Your task to perform on an android device: install app "Google Find My Device" Image 0: 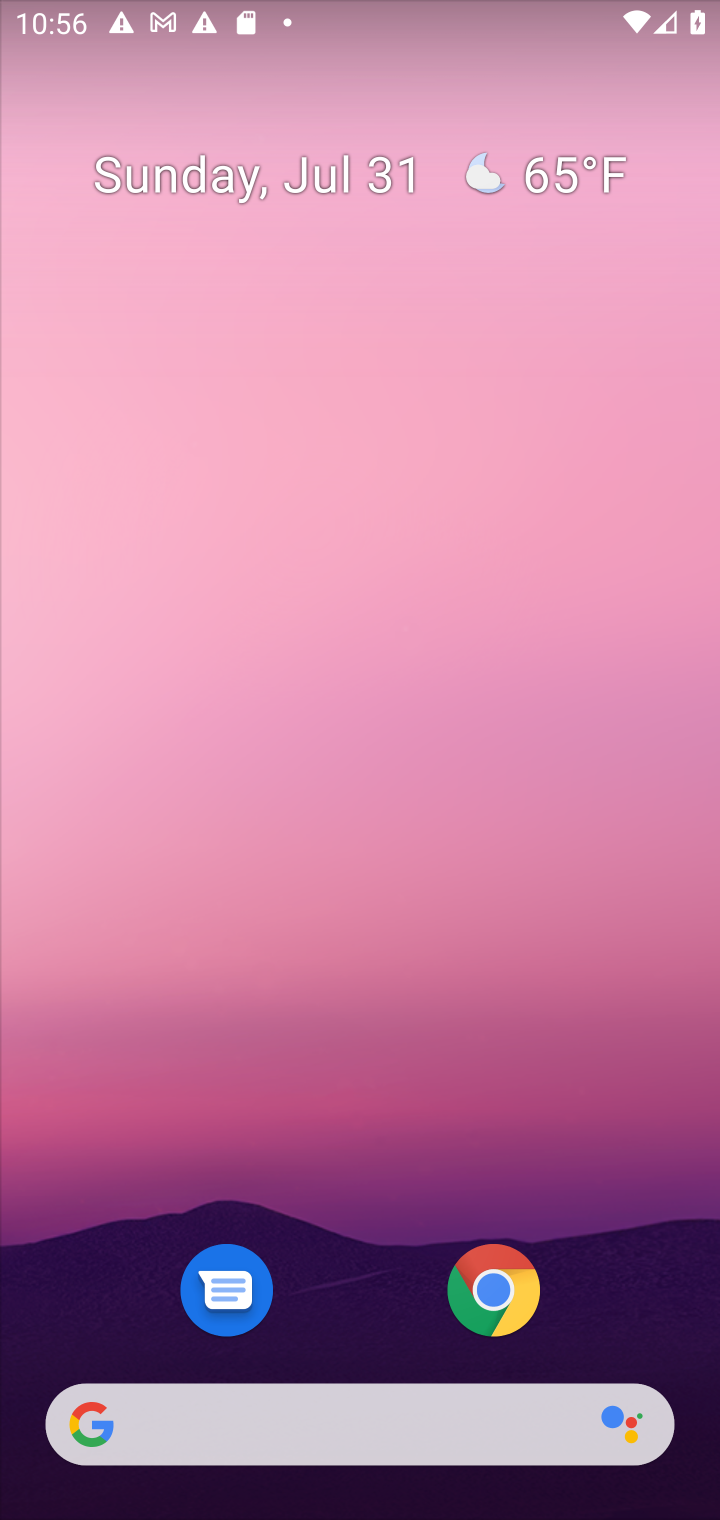
Step 0: press home button
Your task to perform on an android device: install app "Google Find My Device" Image 1: 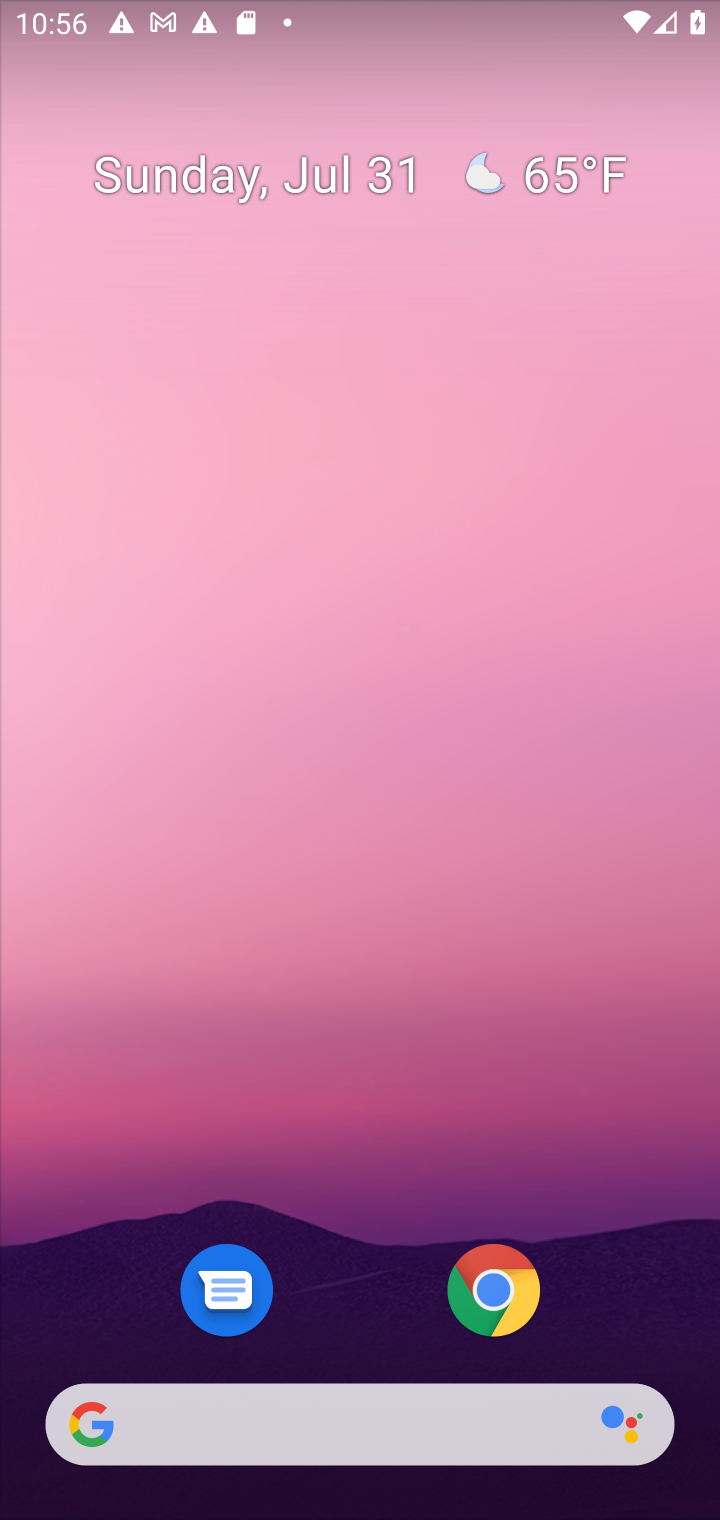
Step 1: drag from (641, 1290) to (518, 132)
Your task to perform on an android device: install app "Google Find My Device" Image 2: 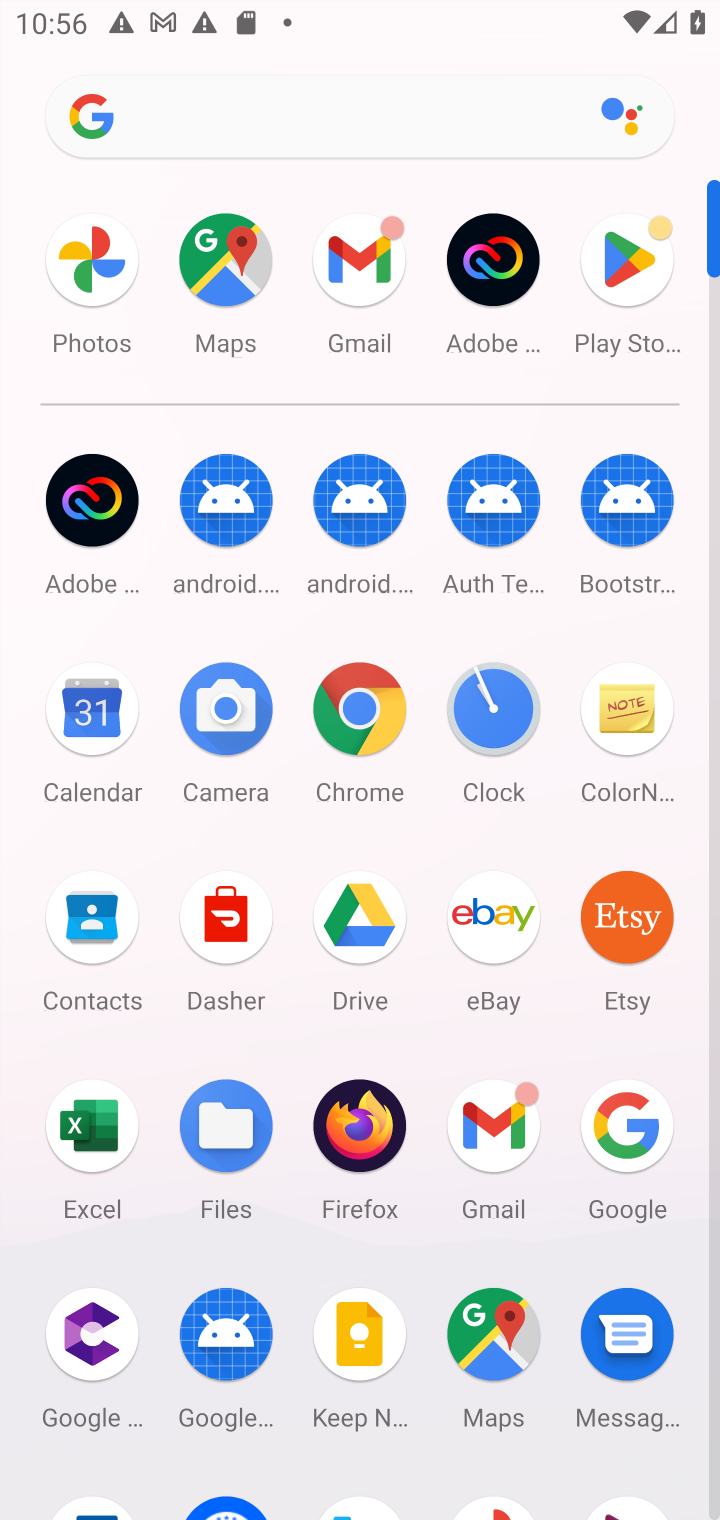
Step 2: click (624, 251)
Your task to perform on an android device: install app "Google Find My Device" Image 3: 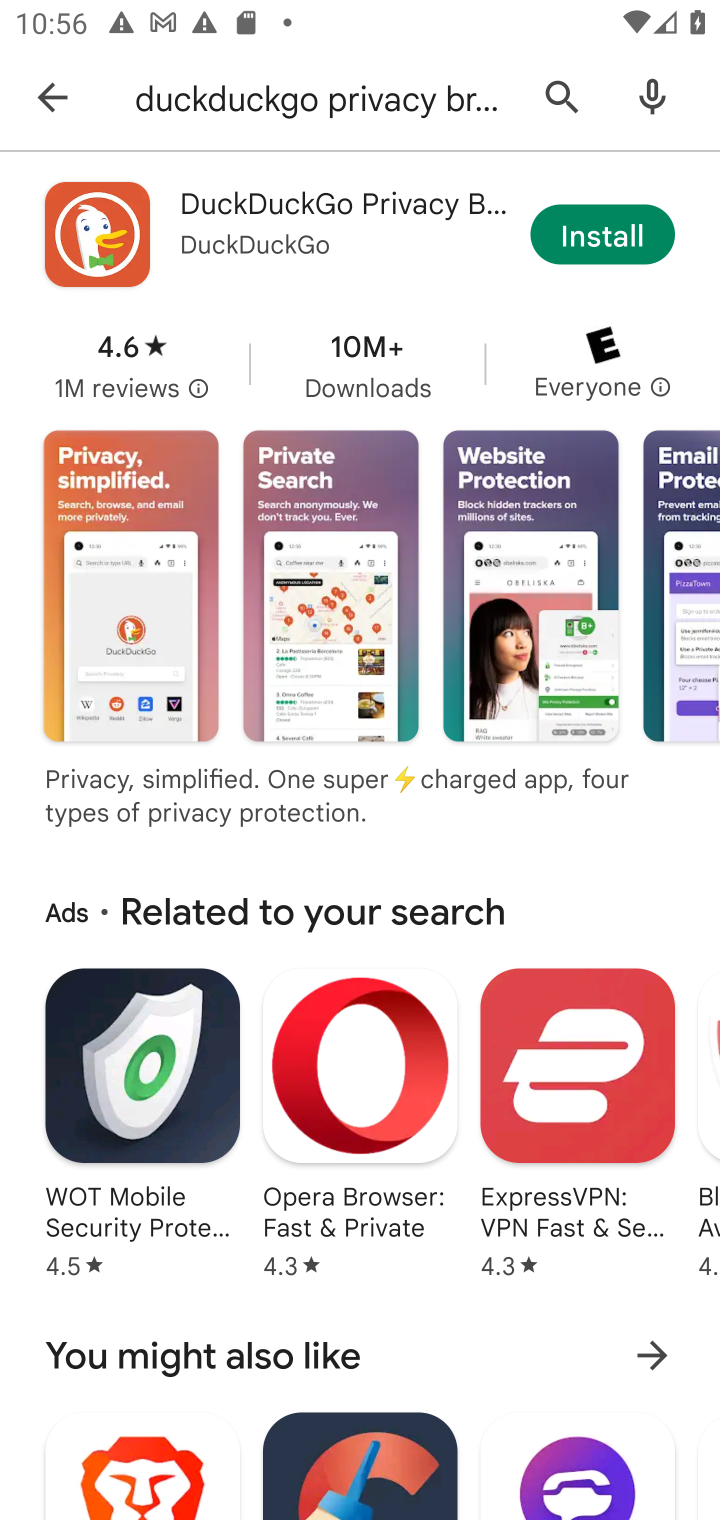
Step 3: click (556, 82)
Your task to perform on an android device: install app "Google Find My Device" Image 4: 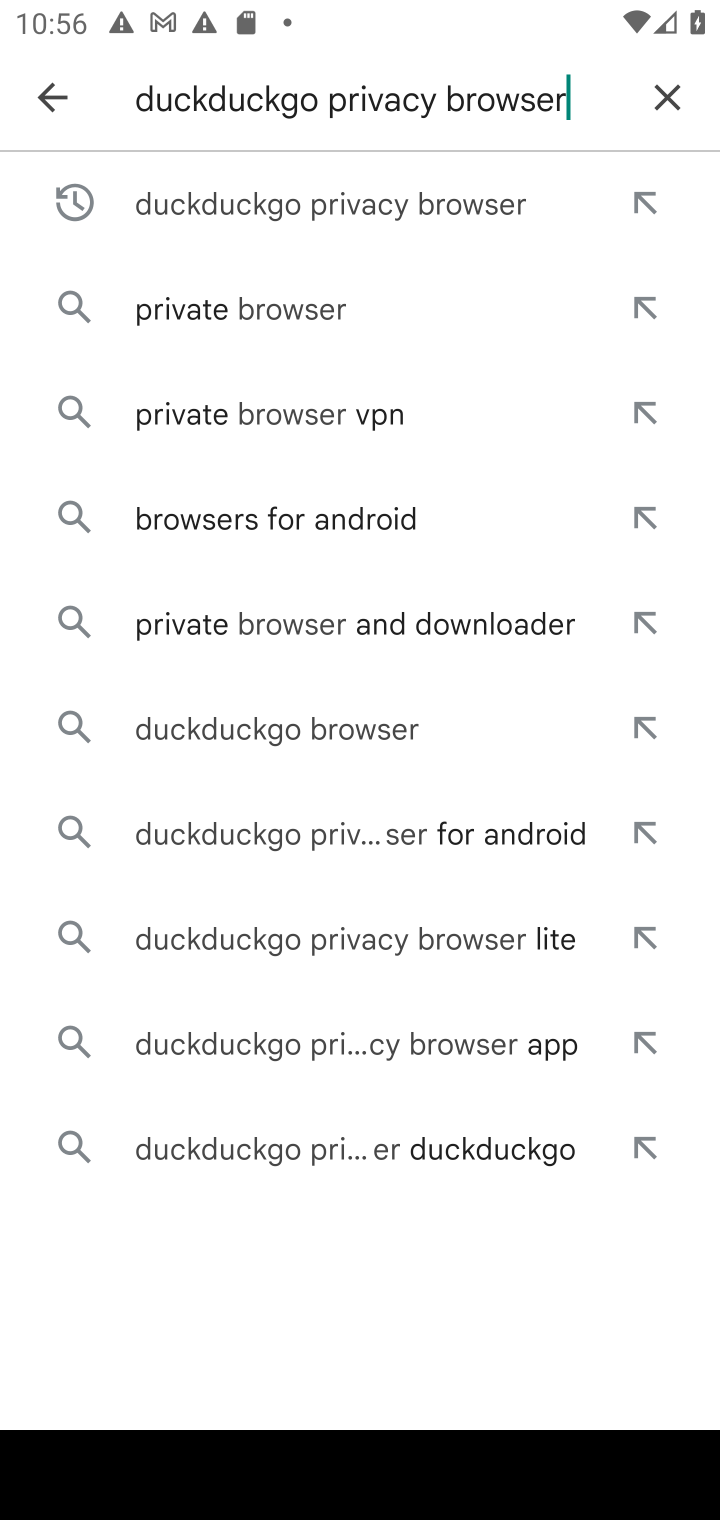
Step 4: click (667, 92)
Your task to perform on an android device: install app "Google Find My Device" Image 5: 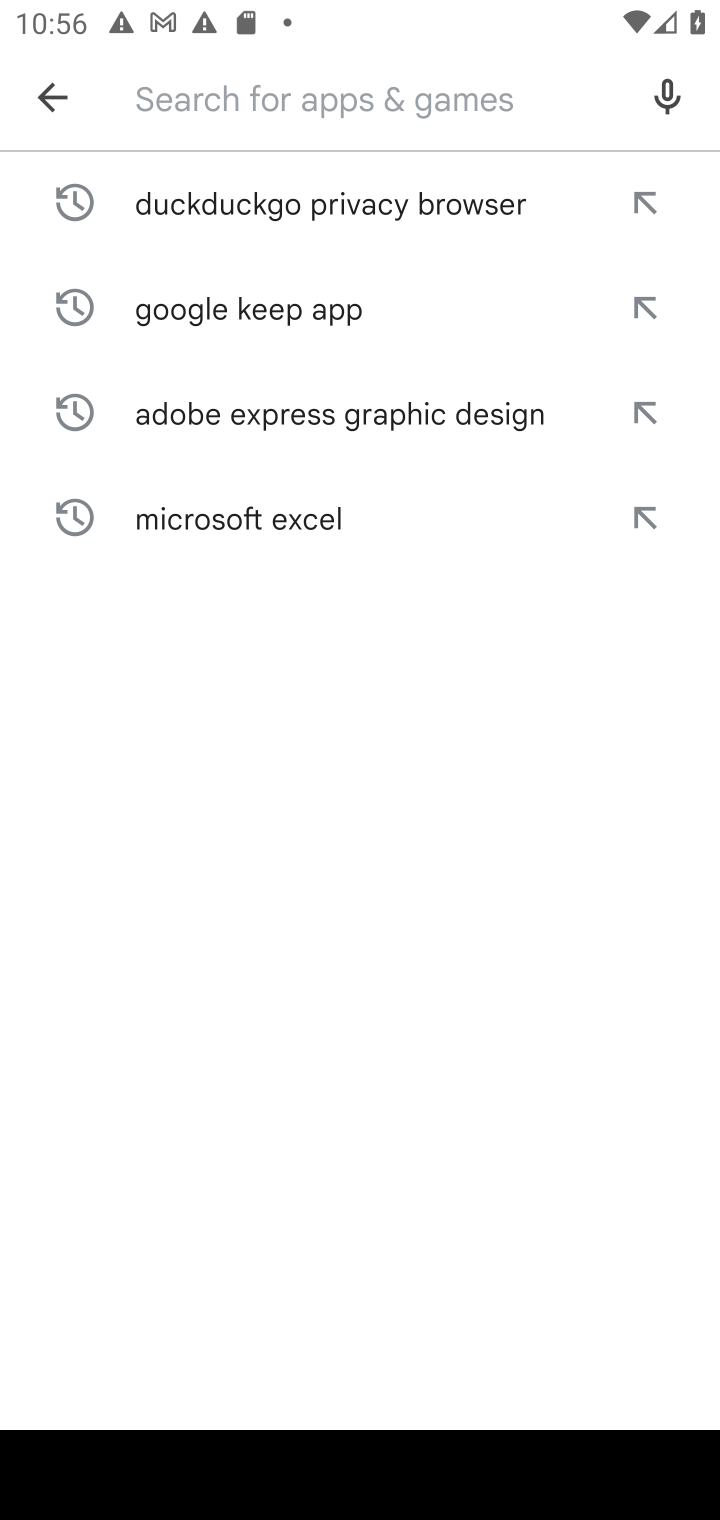
Step 5: type "Google Find My Device"
Your task to perform on an android device: install app "Google Find My Device" Image 6: 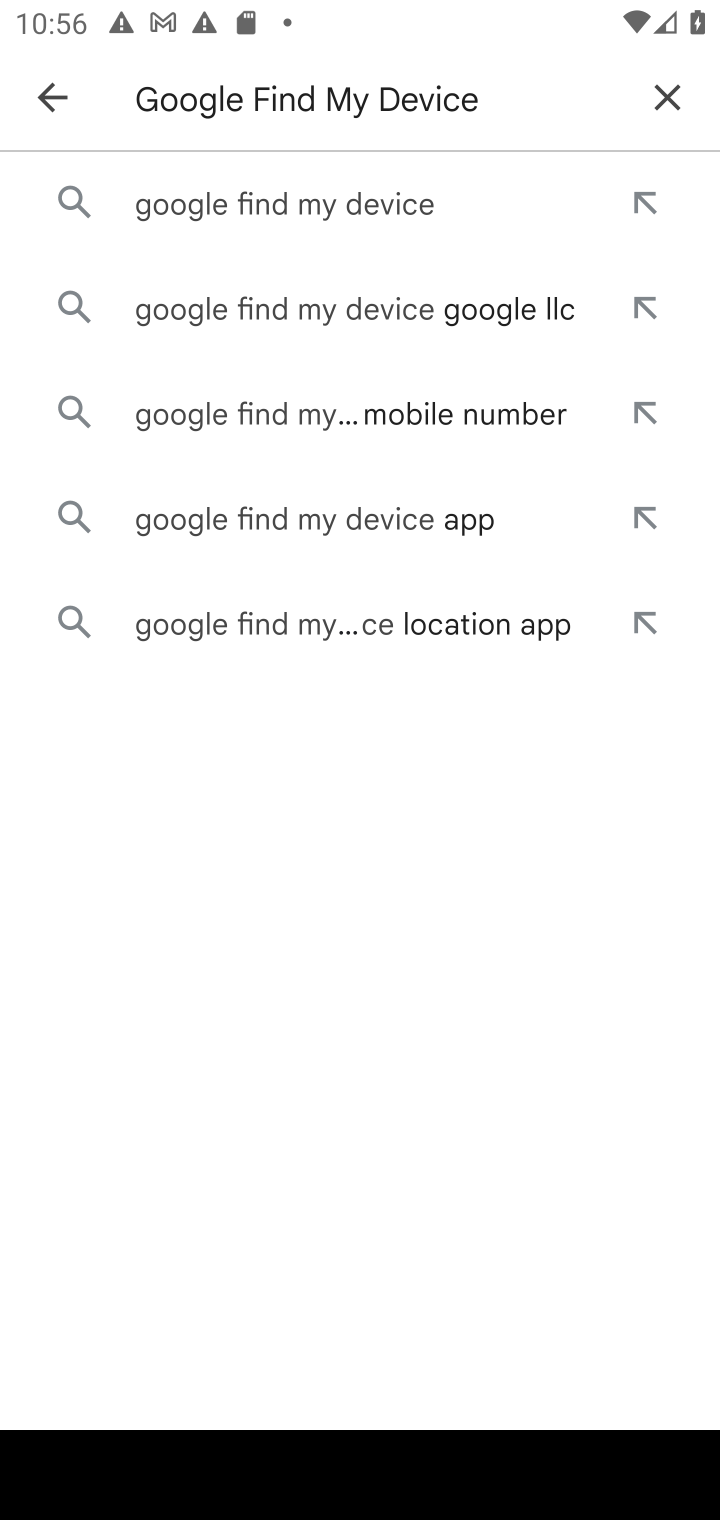
Step 6: click (359, 193)
Your task to perform on an android device: install app "Google Find My Device" Image 7: 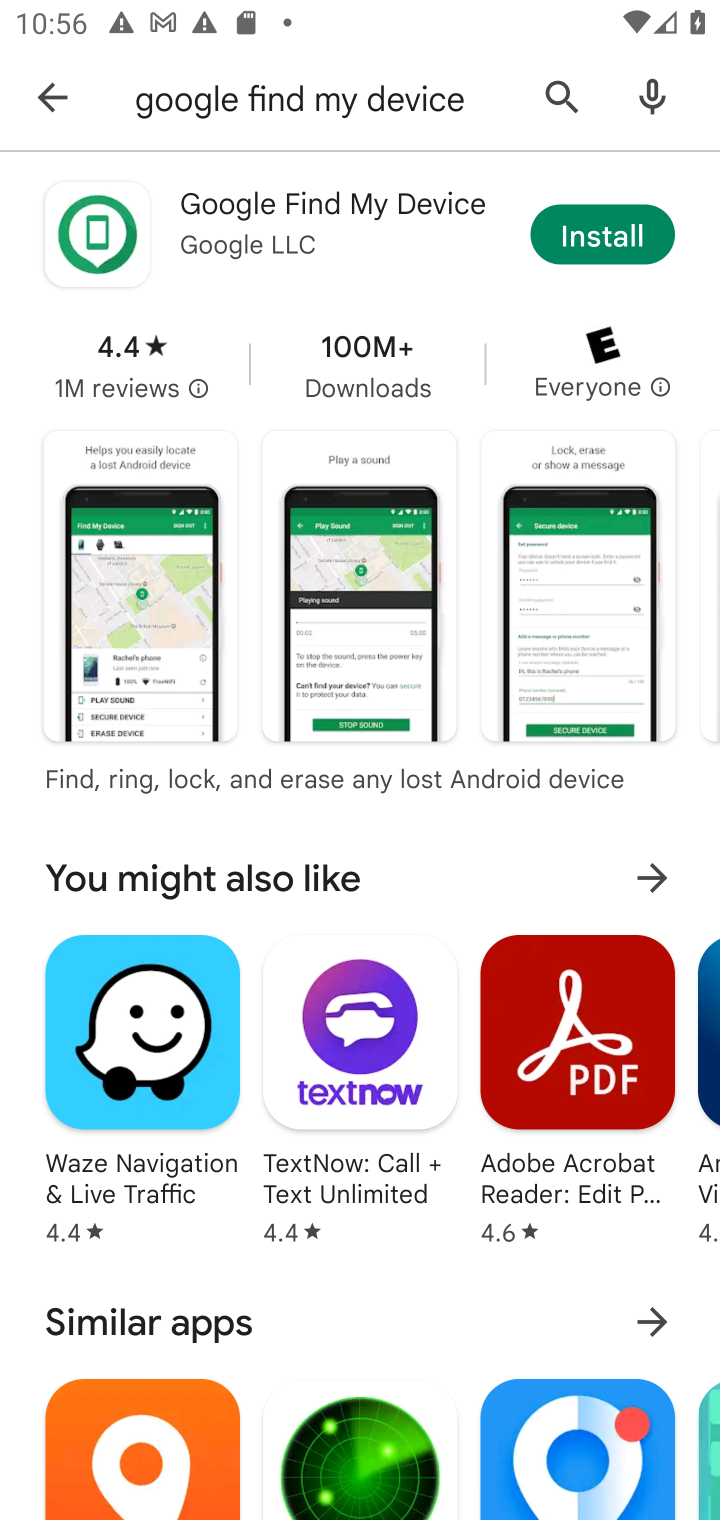
Step 7: click (633, 233)
Your task to perform on an android device: install app "Google Find My Device" Image 8: 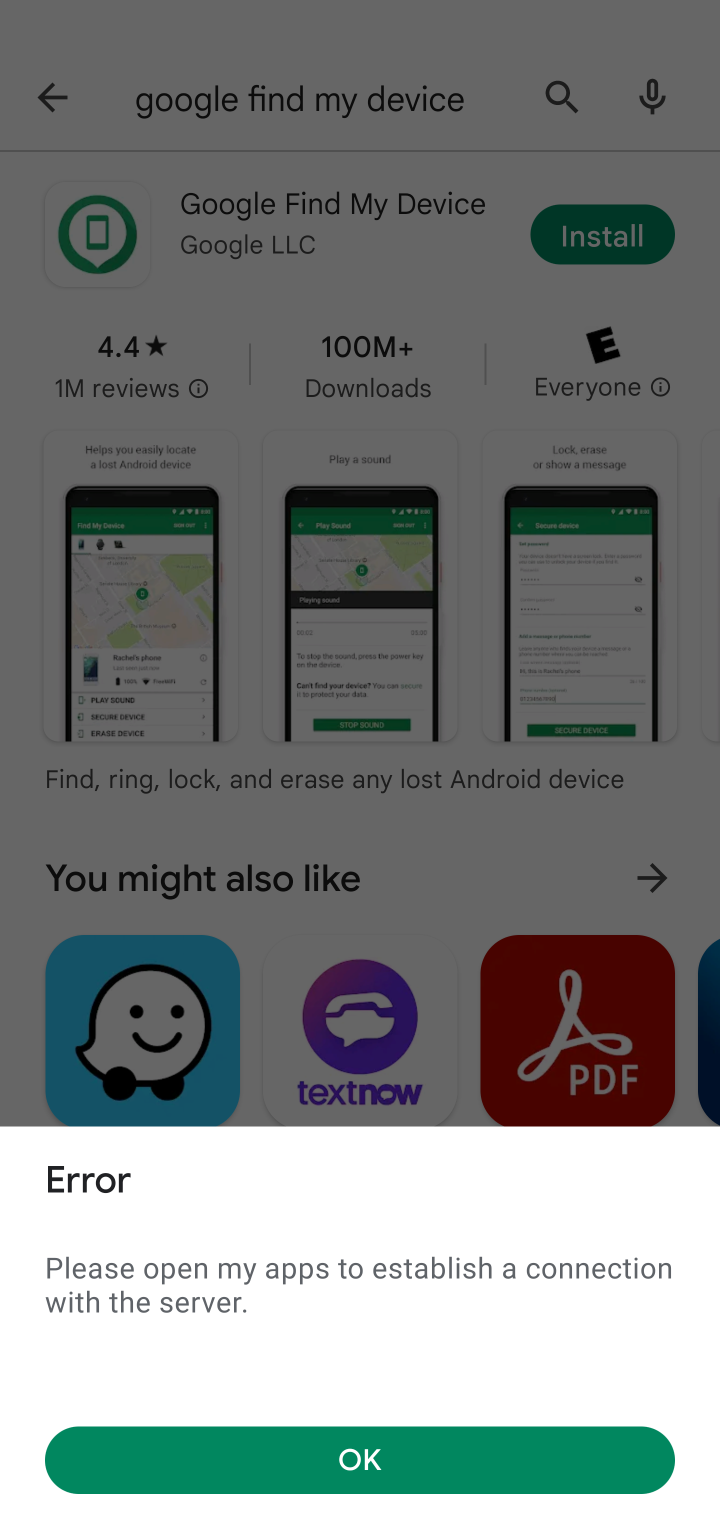
Step 8: task complete